Your task to perform on an android device: Open internet settings Image 0: 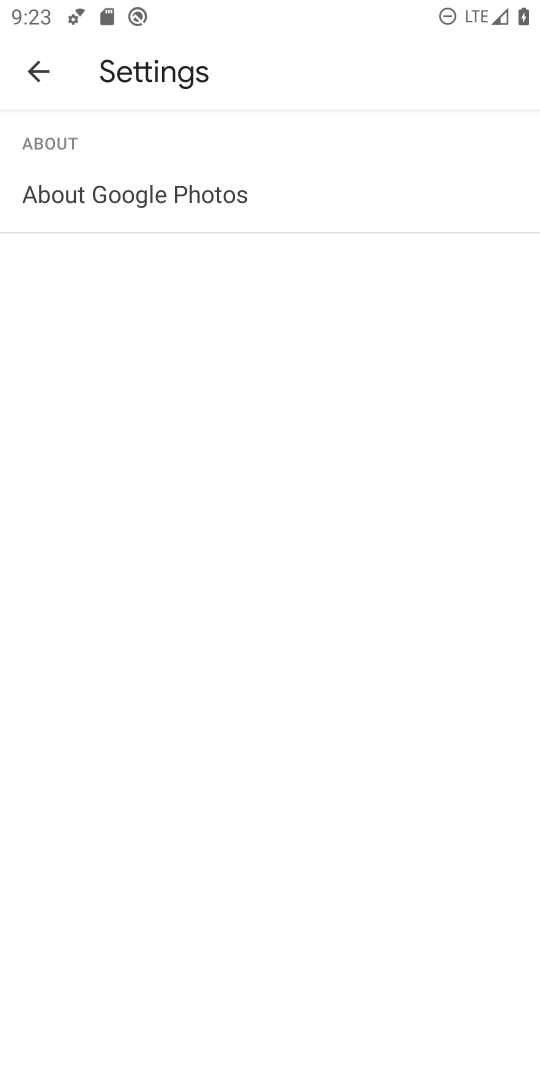
Step 0: press home button
Your task to perform on an android device: Open internet settings Image 1: 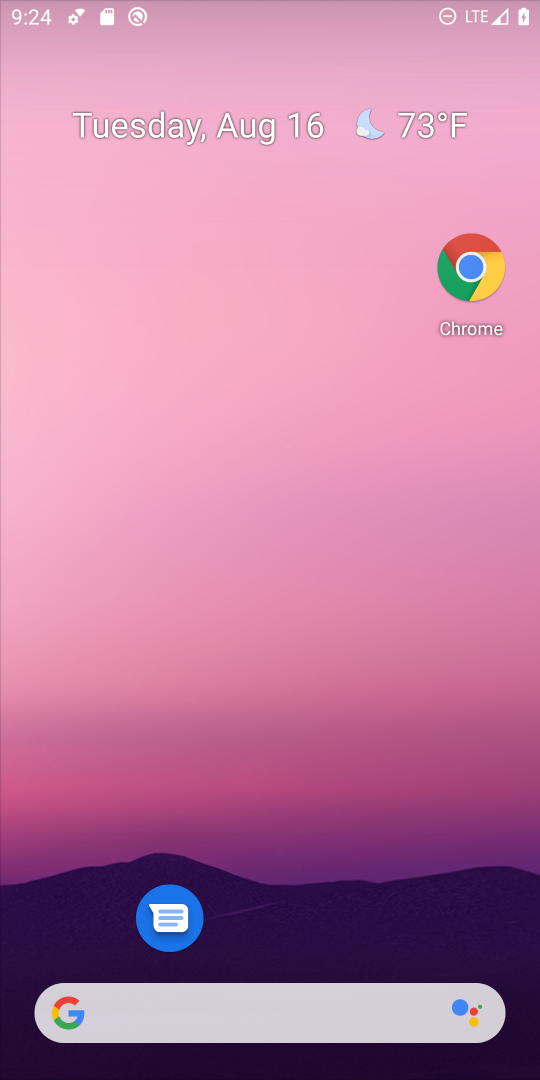
Step 1: click (453, 834)
Your task to perform on an android device: Open internet settings Image 2: 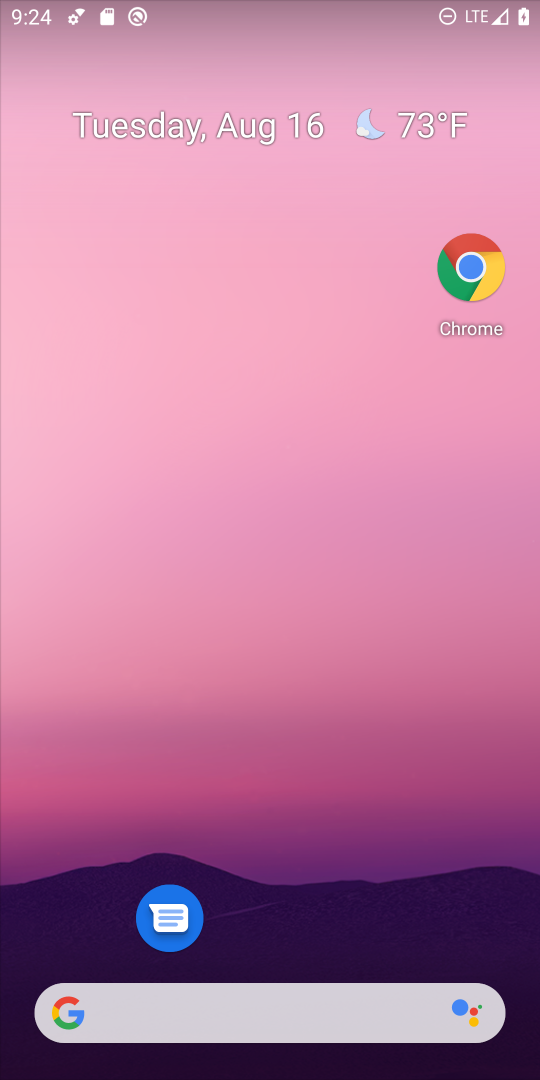
Step 2: drag from (293, 953) to (369, 53)
Your task to perform on an android device: Open internet settings Image 3: 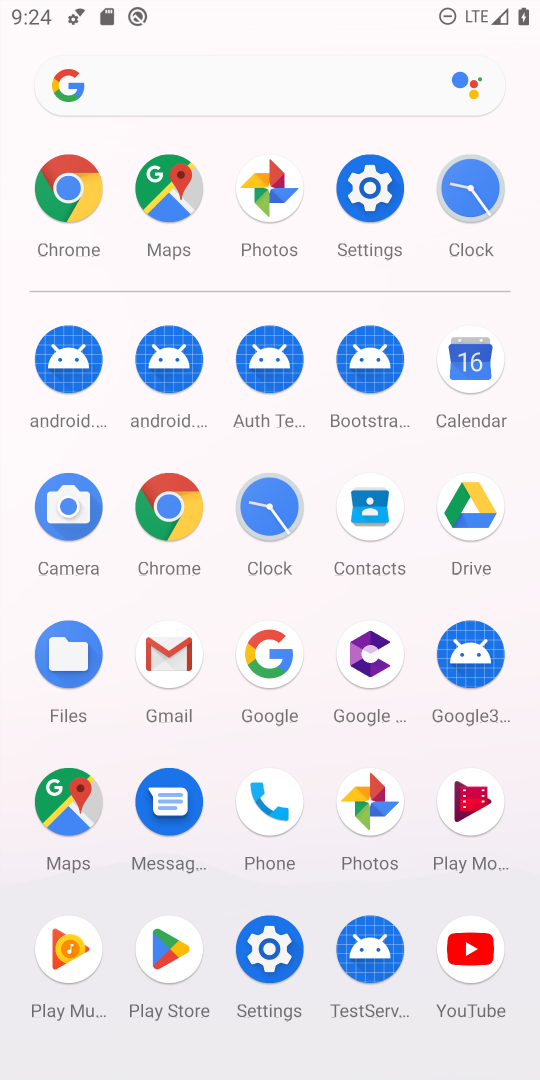
Step 3: click (384, 217)
Your task to perform on an android device: Open internet settings Image 4: 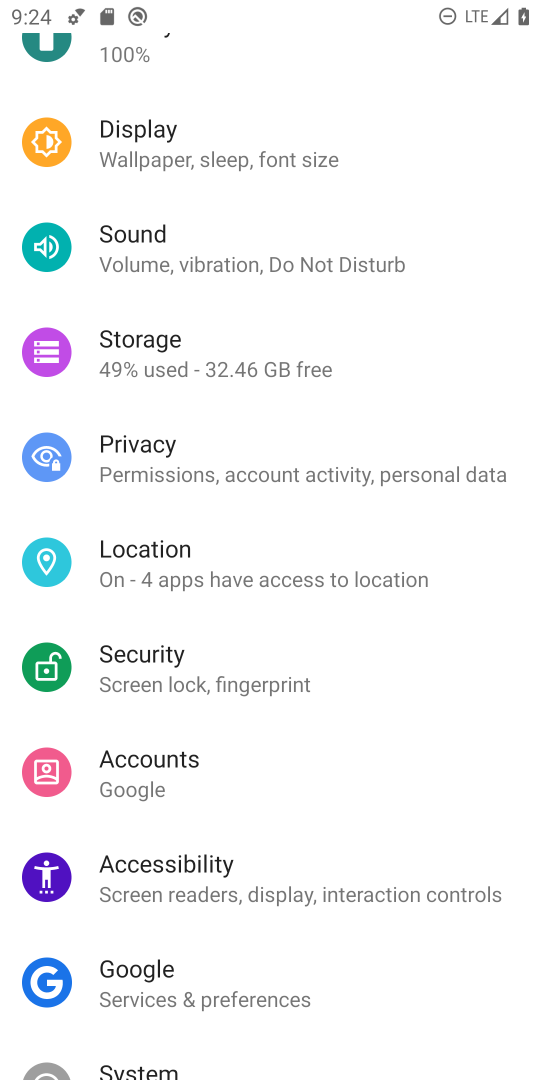
Step 4: drag from (285, 370) to (205, 996)
Your task to perform on an android device: Open internet settings Image 5: 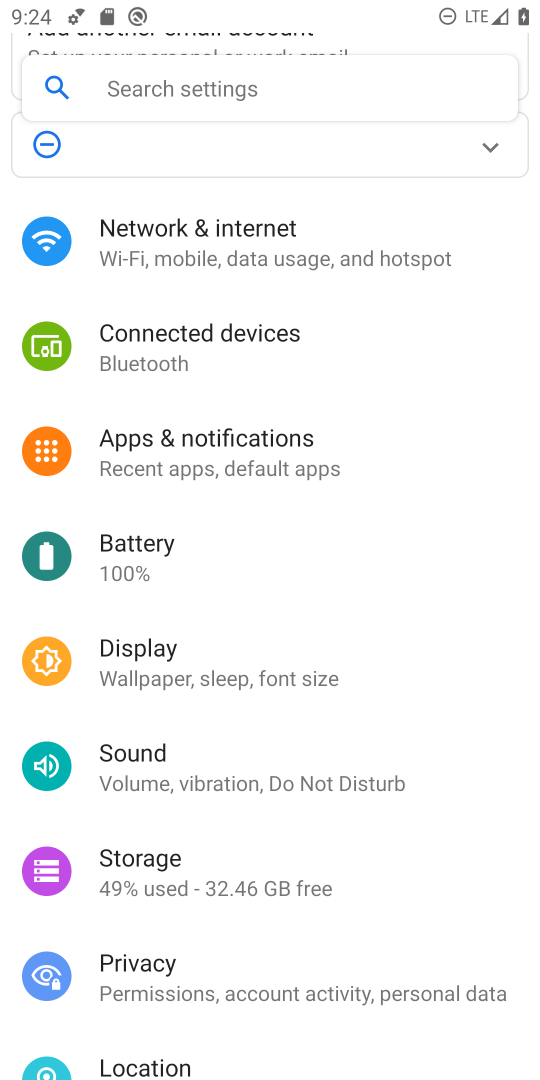
Step 5: click (286, 259)
Your task to perform on an android device: Open internet settings Image 6: 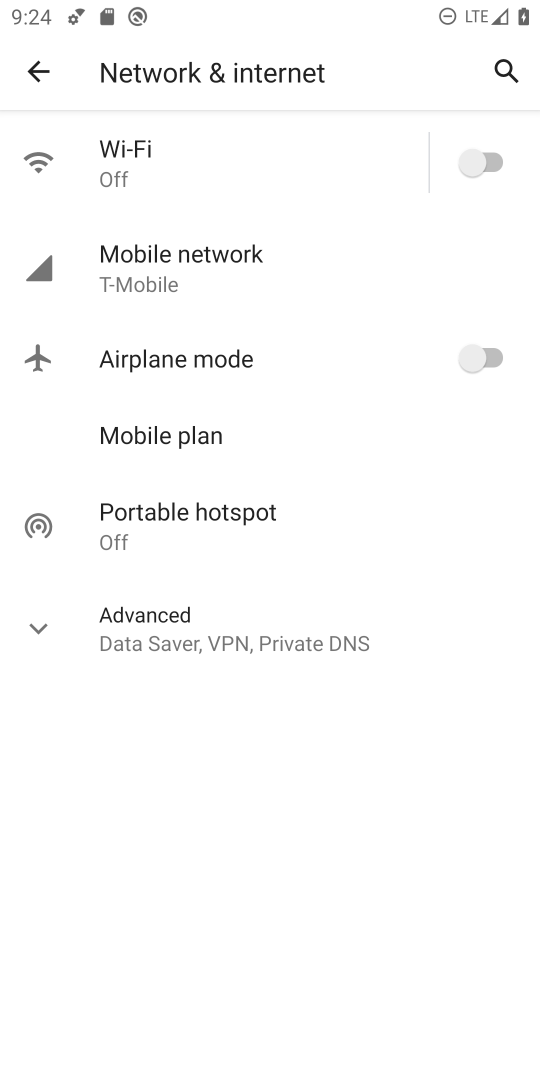
Step 6: click (268, 273)
Your task to perform on an android device: Open internet settings Image 7: 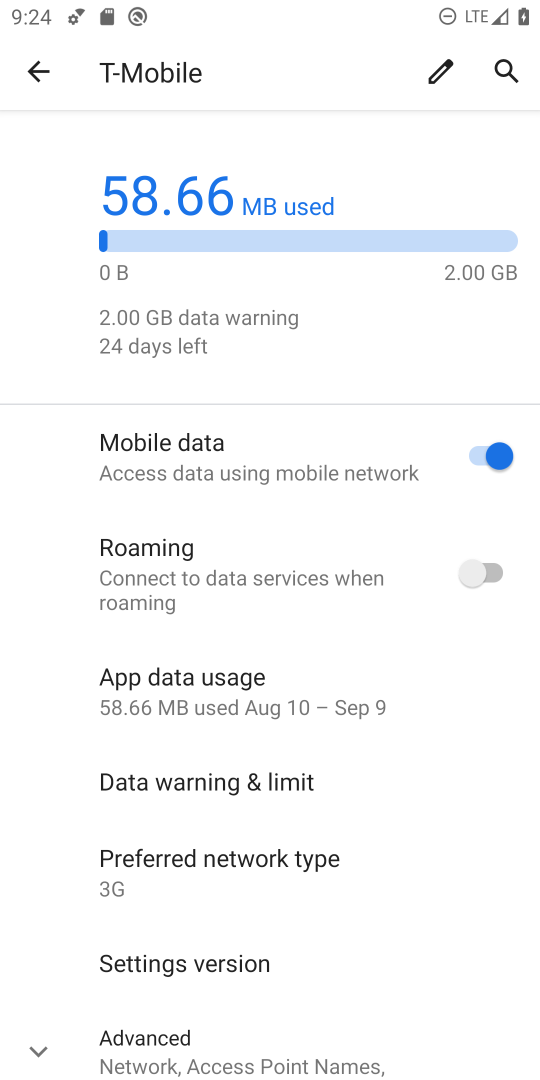
Step 7: task complete